Your task to perform on an android device: Check the news Image 0: 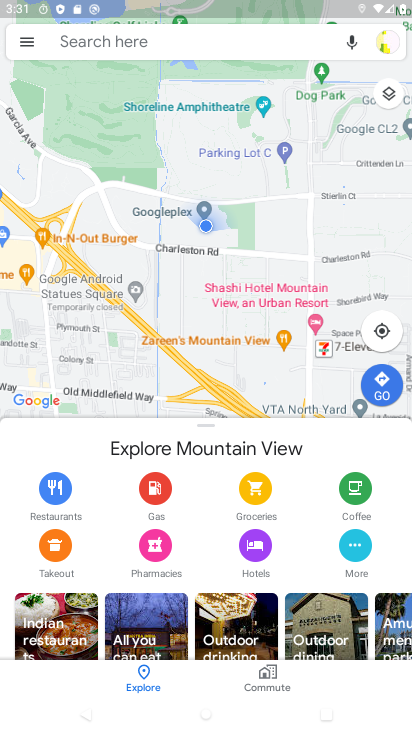
Step 0: press home button
Your task to perform on an android device: Check the news Image 1: 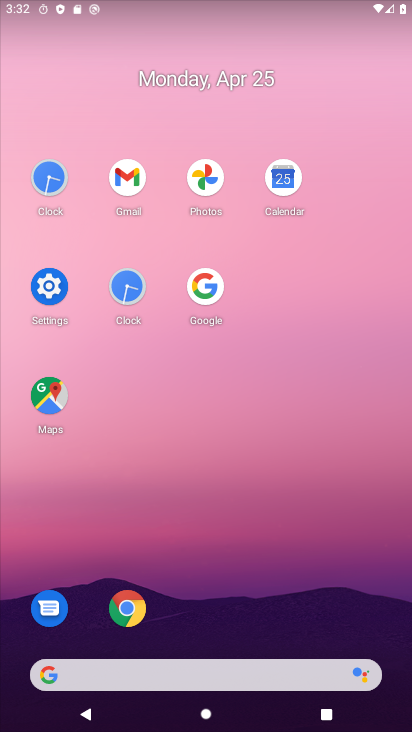
Step 1: click (219, 287)
Your task to perform on an android device: Check the news Image 2: 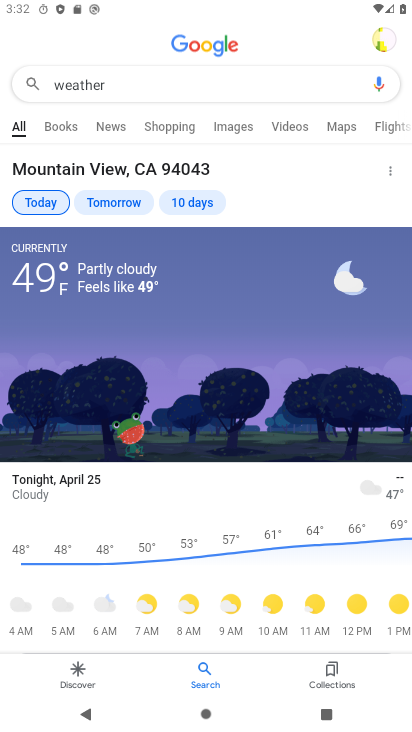
Step 2: click (149, 78)
Your task to perform on an android device: Check the news Image 3: 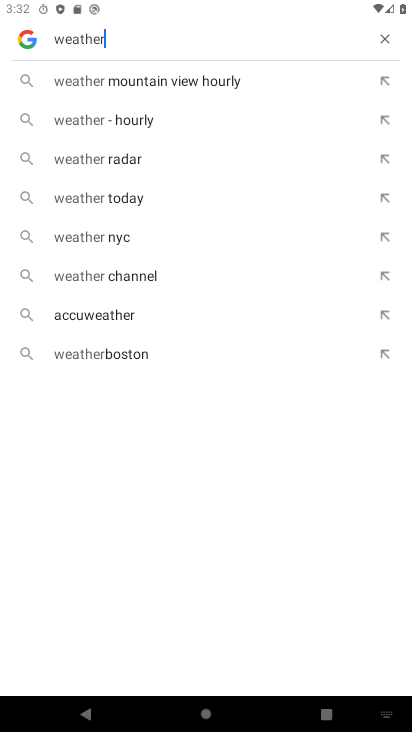
Step 3: click (385, 31)
Your task to perform on an android device: Check the news Image 4: 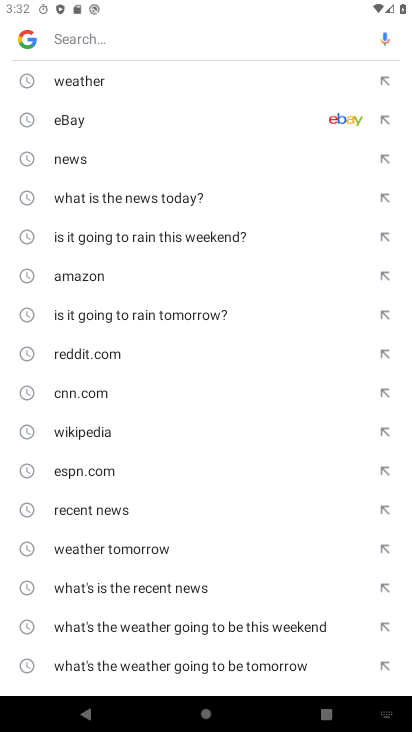
Step 4: click (64, 174)
Your task to perform on an android device: Check the news Image 5: 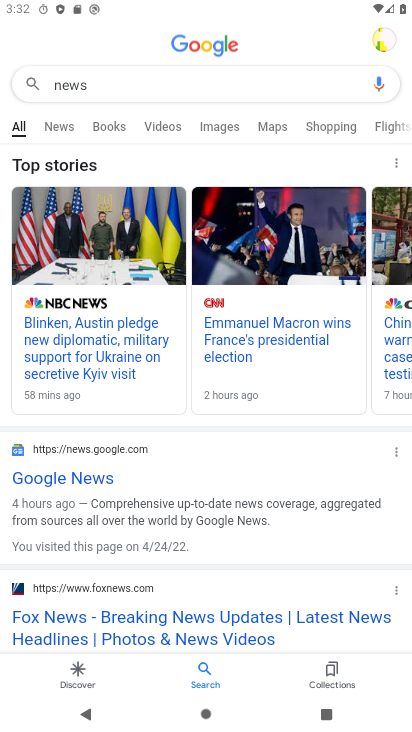
Step 5: task complete